Your task to perform on an android device: Show me the alarms in the clock app Image 0: 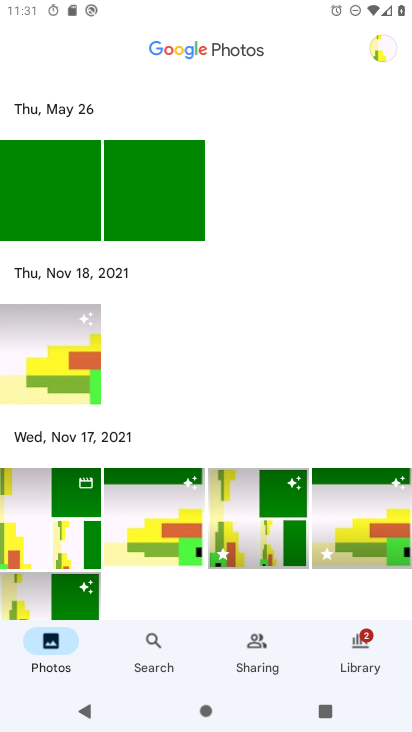
Step 0: press back button
Your task to perform on an android device: Show me the alarms in the clock app Image 1: 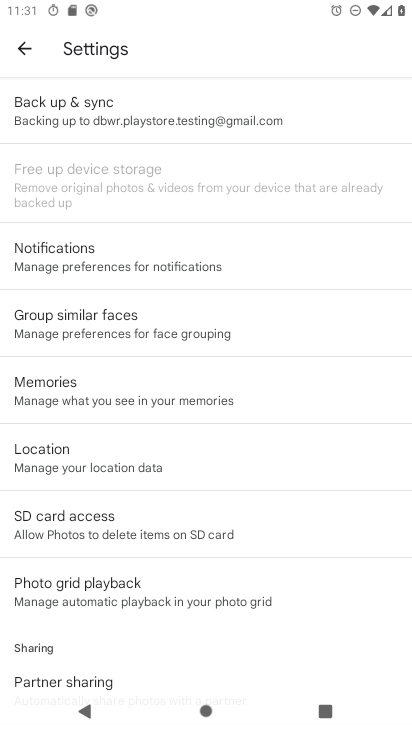
Step 1: press back button
Your task to perform on an android device: Show me the alarms in the clock app Image 2: 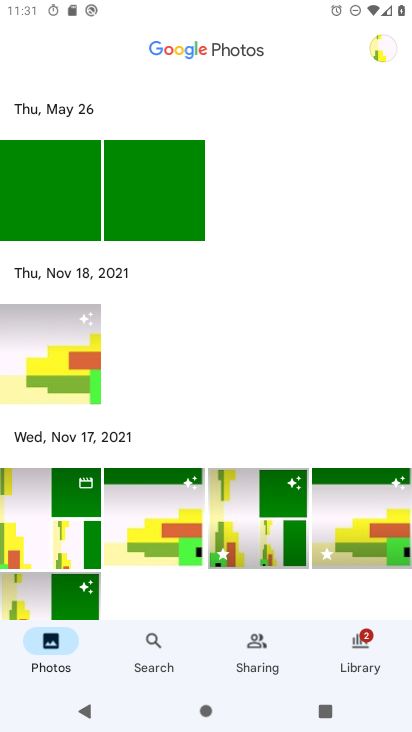
Step 2: press back button
Your task to perform on an android device: Show me the alarms in the clock app Image 3: 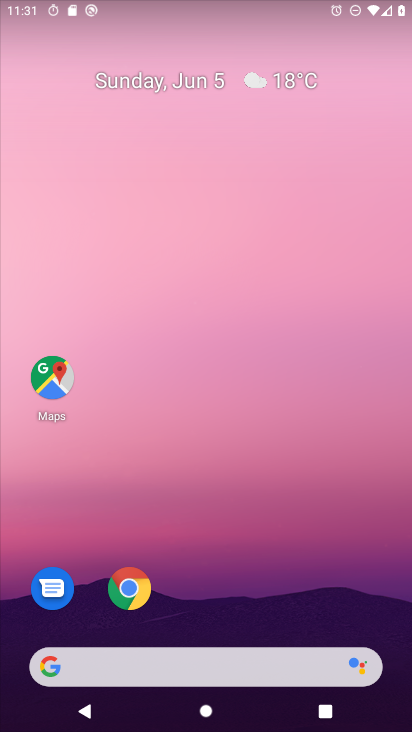
Step 3: drag from (369, 603) to (367, 211)
Your task to perform on an android device: Show me the alarms in the clock app Image 4: 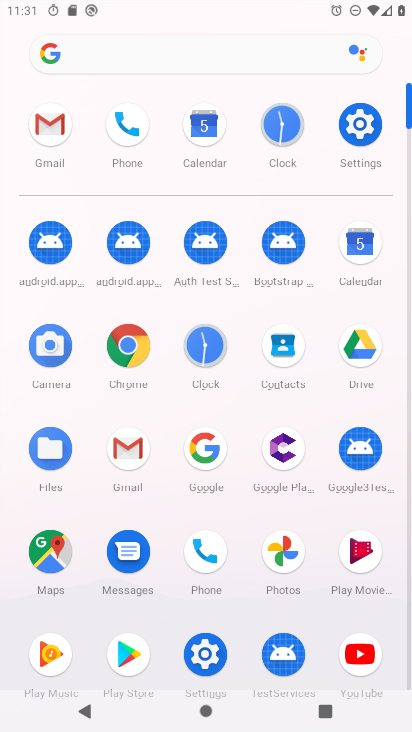
Step 4: click (195, 344)
Your task to perform on an android device: Show me the alarms in the clock app Image 5: 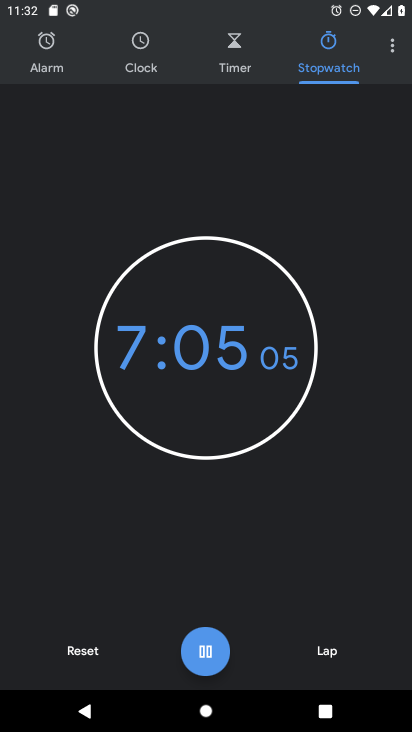
Step 5: click (47, 51)
Your task to perform on an android device: Show me the alarms in the clock app Image 6: 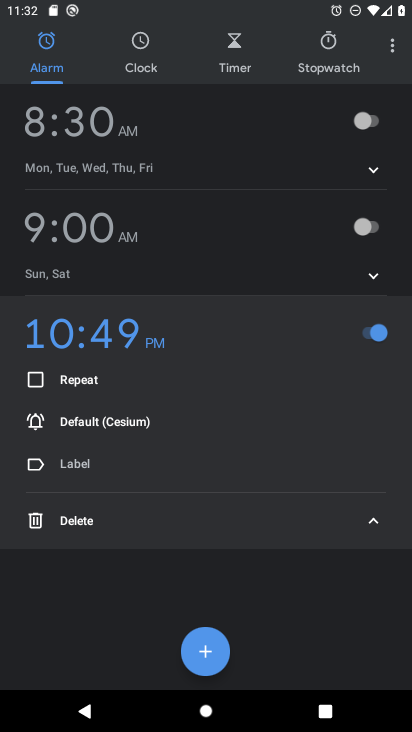
Step 6: task complete